Your task to perform on an android device: turn notification dots off Image 0: 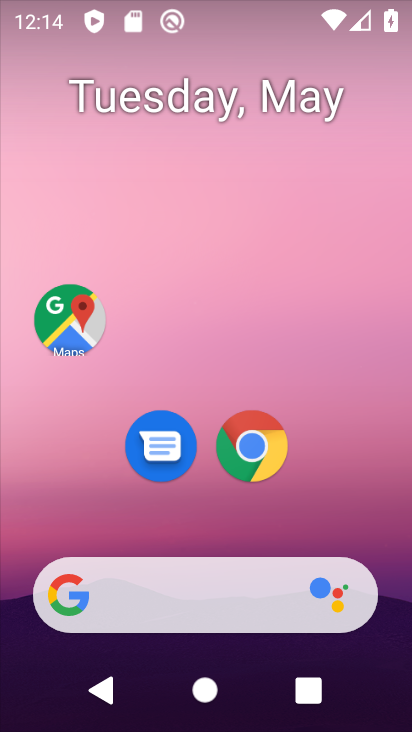
Step 0: drag from (190, 684) to (215, 213)
Your task to perform on an android device: turn notification dots off Image 1: 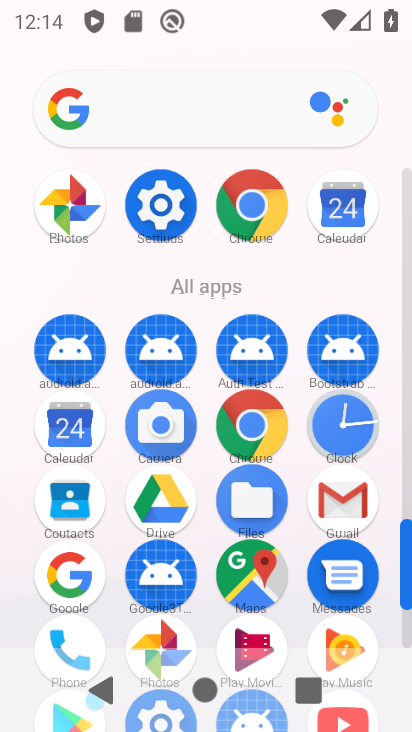
Step 1: click (152, 222)
Your task to perform on an android device: turn notification dots off Image 2: 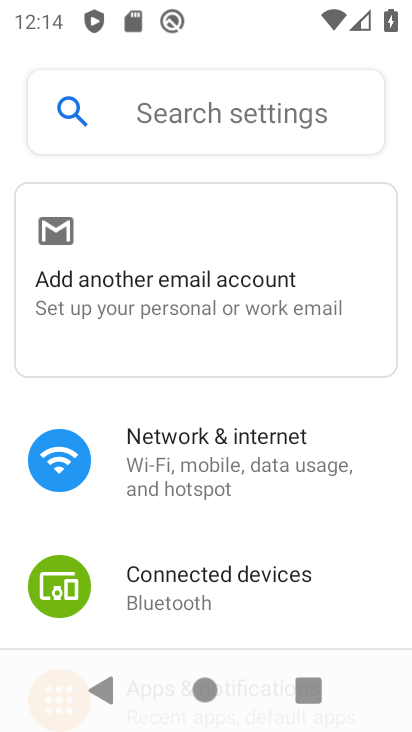
Step 2: drag from (171, 464) to (238, 93)
Your task to perform on an android device: turn notification dots off Image 3: 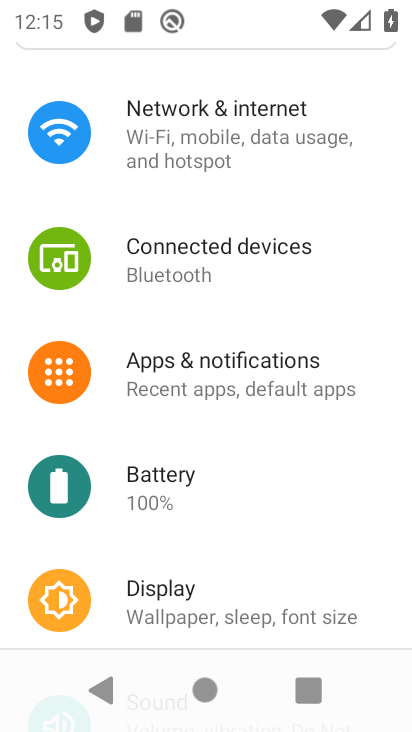
Step 3: click (183, 362)
Your task to perform on an android device: turn notification dots off Image 4: 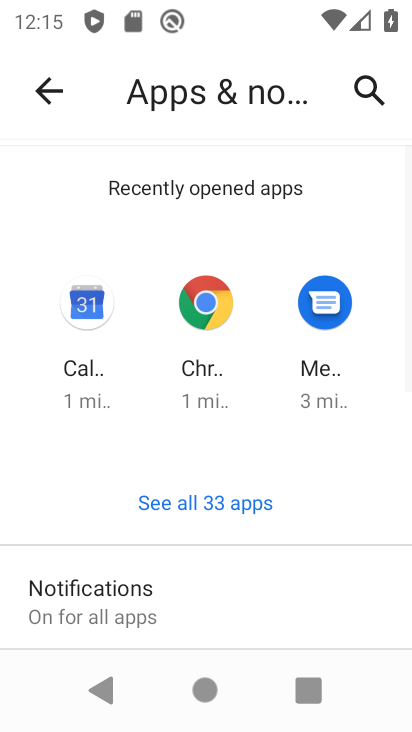
Step 4: drag from (161, 611) to (149, 326)
Your task to perform on an android device: turn notification dots off Image 5: 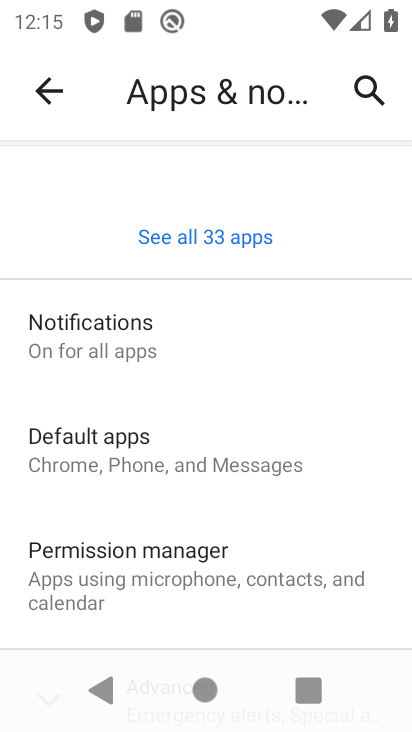
Step 5: click (151, 335)
Your task to perform on an android device: turn notification dots off Image 6: 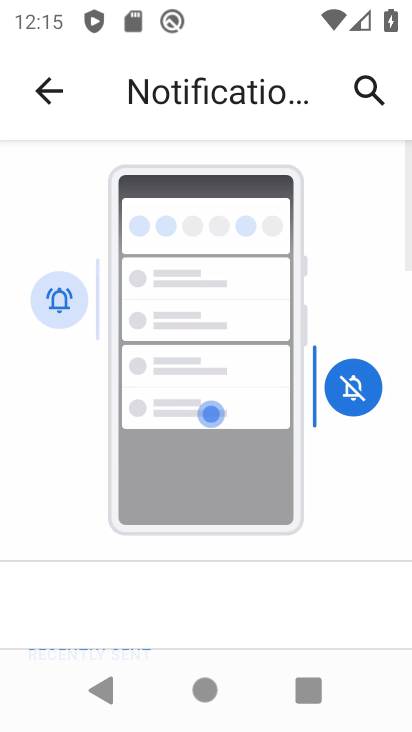
Step 6: drag from (179, 530) to (159, 130)
Your task to perform on an android device: turn notification dots off Image 7: 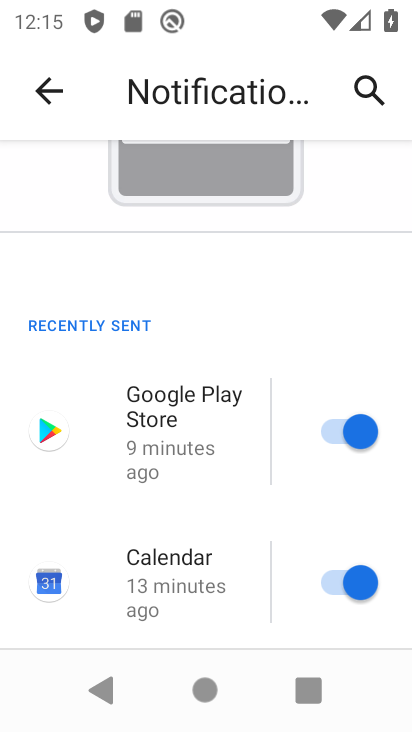
Step 7: drag from (141, 441) to (130, 121)
Your task to perform on an android device: turn notification dots off Image 8: 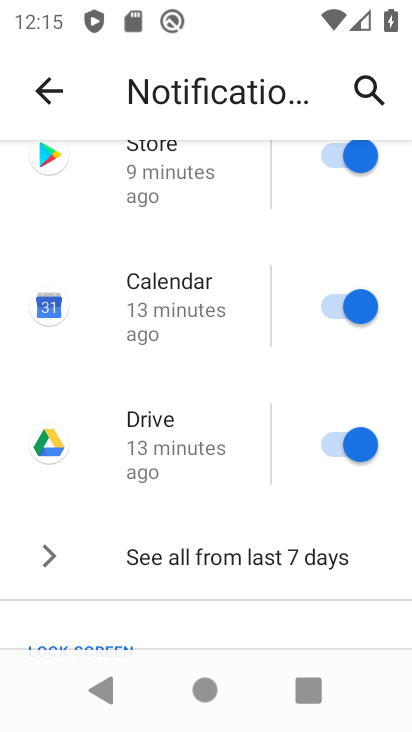
Step 8: drag from (124, 489) to (132, 173)
Your task to perform on an android device: turn notification dots off Image 9: 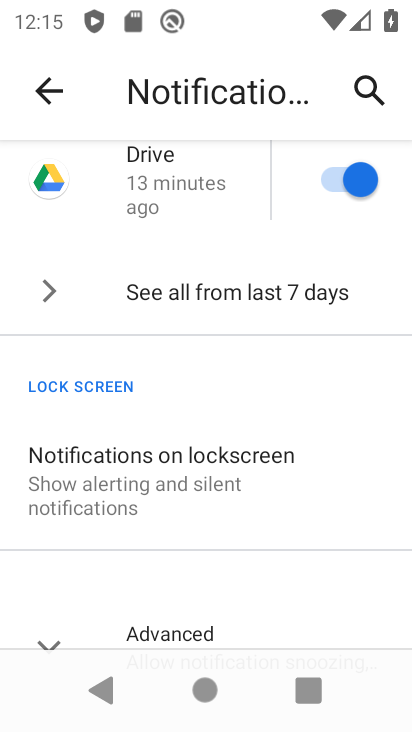
Step 9: drag from (111, 491) to (121, 161)
Your task to perform on an android device: turn notification dots off Image 10: 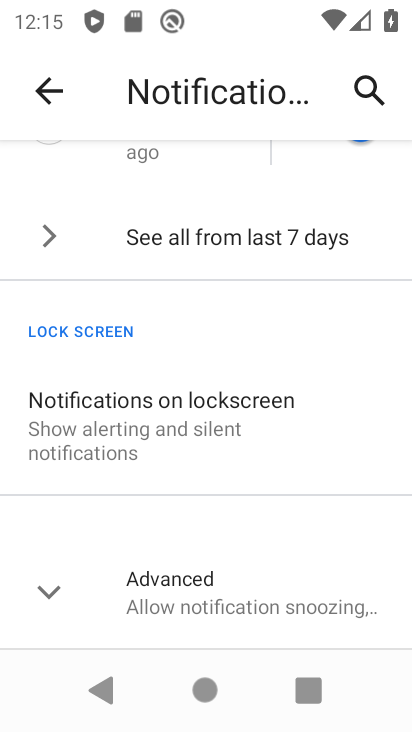
Step 10: click (131, 581)
Your task to perform on an android device: turn notification dots off Image 11: 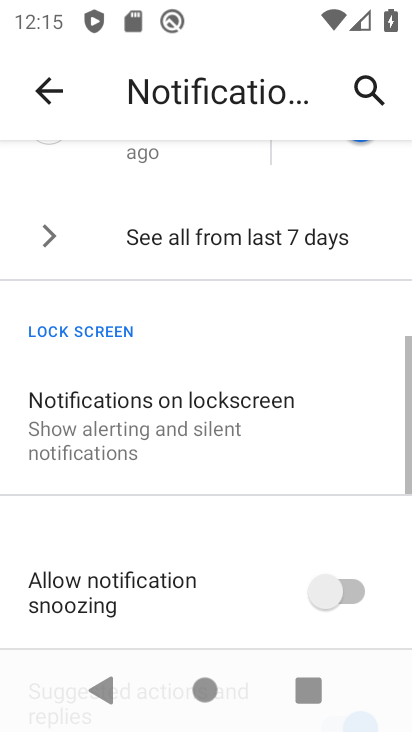
Step 11: drag from (142, 512) to (187, 206)
Your task to perform on an android device: turn notification dots off Image 12: 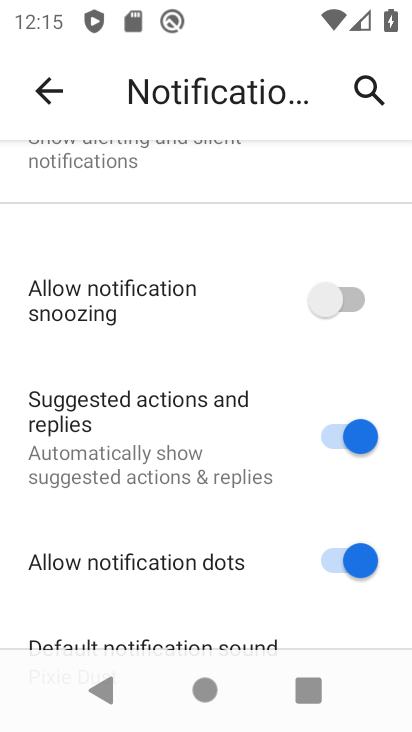
Step 12: drag from (120, 539) to (124, 456)
Your task to perform on an android device: turn notification dots off Image 13: 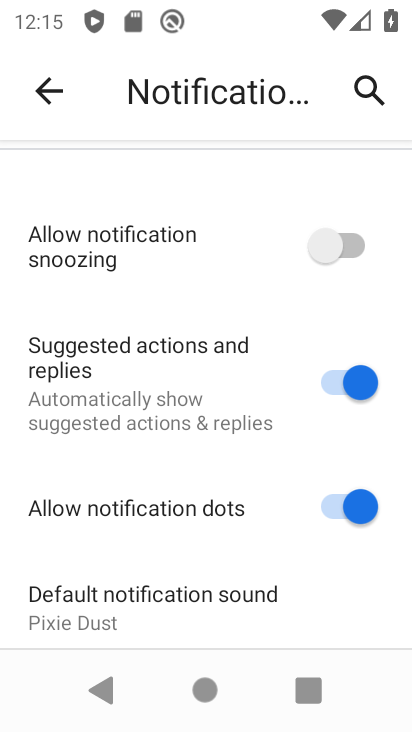
Step 13: click (313, 508)
Your task to perform on an android device: turn notification dots off Image 14: 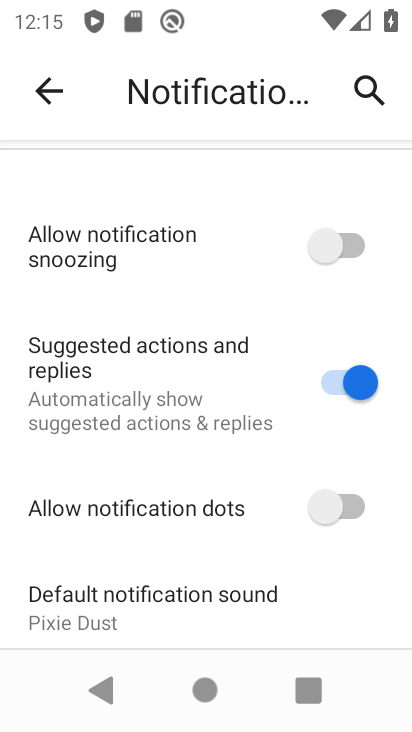
Step 14: task complete